Your task to perform on an android device: set an alarm Image 0: 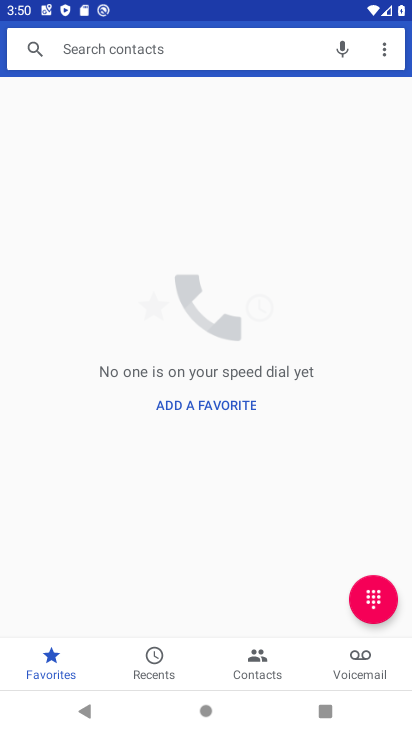
Step 0: press home button
Your task to perform on an android device: set an alarm Image 1: 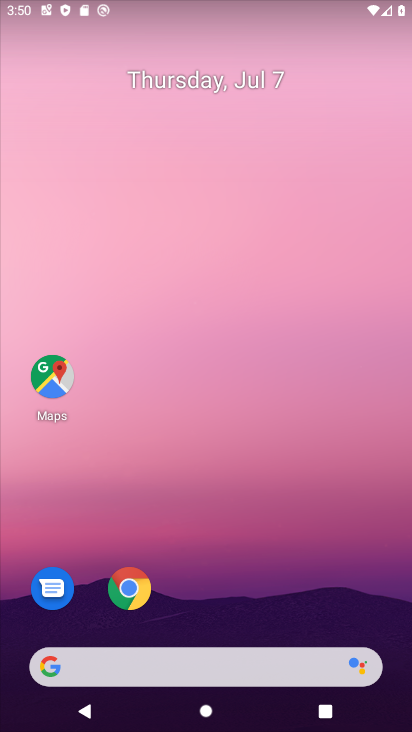
Step 1: drag from (253, 691) to (243, 234)
Your task to perform on an android device: set an alarm Image 2: 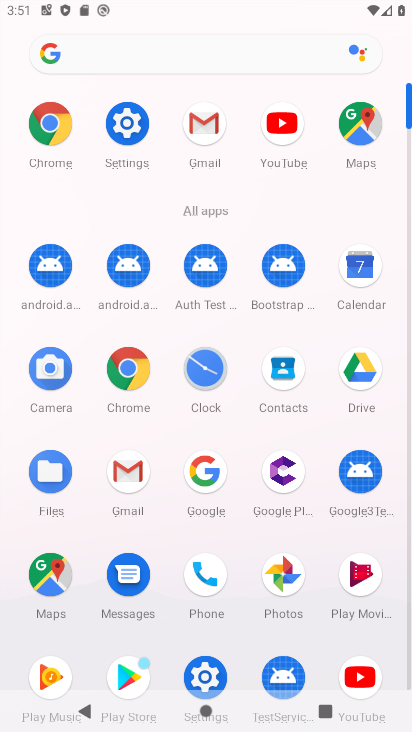
Step 2: click (217, 358)
Your task to perform on an android device: set an alarm Image 3: 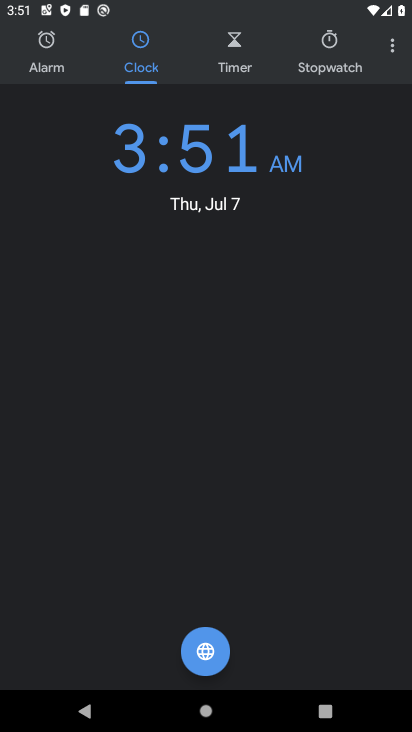
Step 3: click (64, 71)
Your task to perform on an android device: set an alarm Image 4: 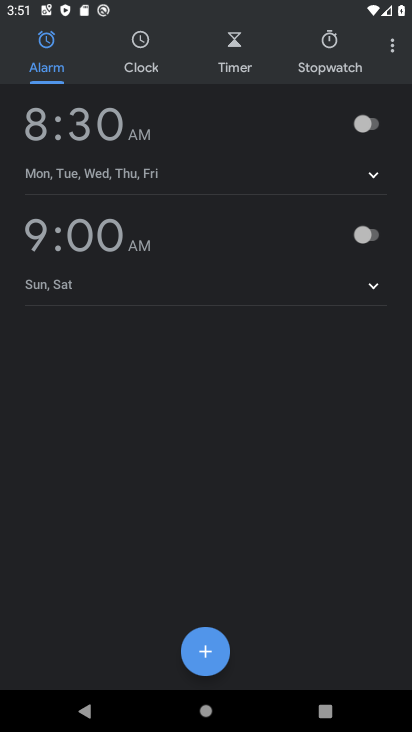
Step 4: click (365, 128)
Your task to perform on an android device: set an alarm Image 5: 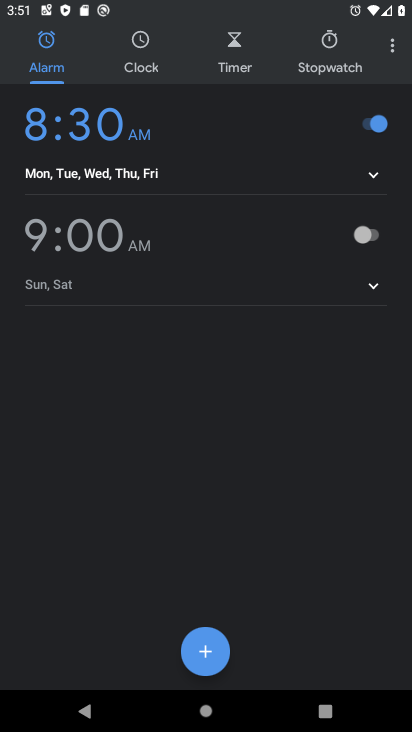
Step 5: task complete